Your task to perform on an android device: Open location settings Image 0: 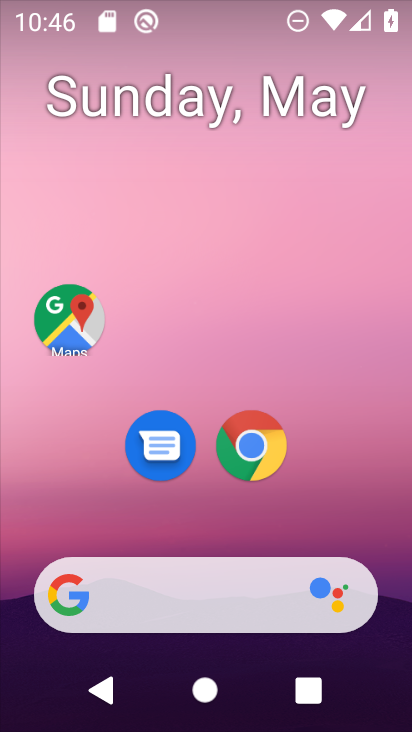
Step 0: drag from (136, 546) to (244, 116)
Your task to perform on an android device: Open location settings Image 1: 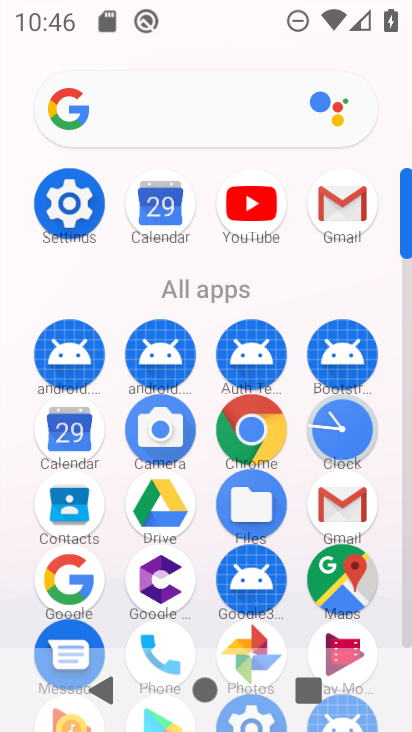
Step 1: click (77, 196)
Your task to perform on an android device: Open location settings Image 2: 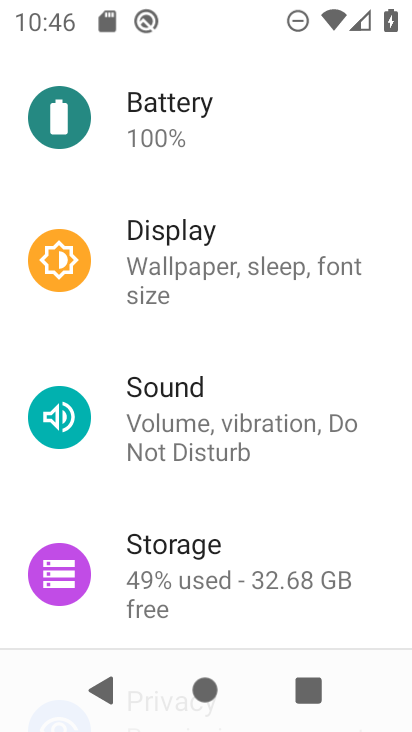
Step 2: drag from (186, 576) to (255, 74)
Your task to perform on an android device: Open location settings Image 3: 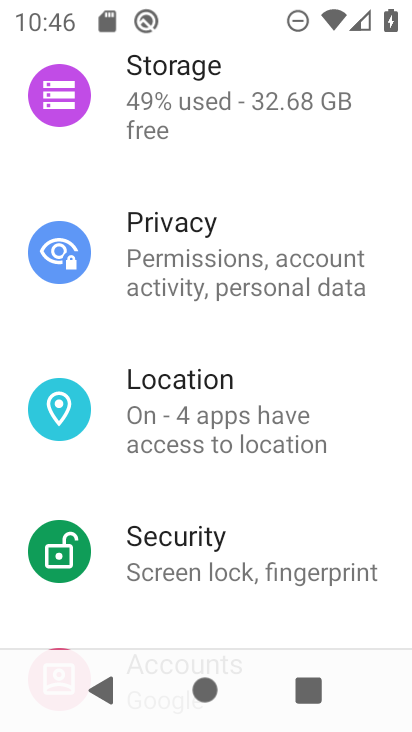
Step 3: click (191, 403)
Your task to perform on an android device: Open location settings Image 4: 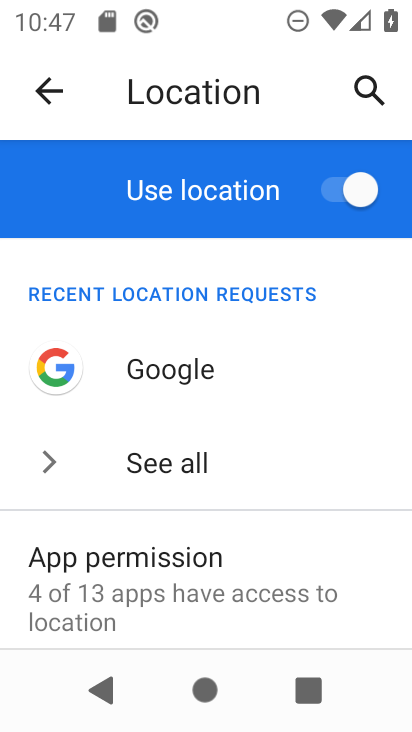
Step 4: task complete